Your task to perform on an android device: Go to Wikipedia Image 0: 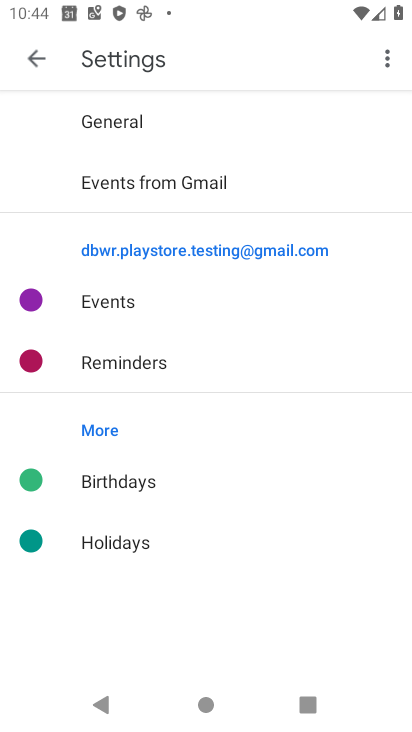
Step 0: press home button
Your task to perform on an android device: Go to Wikipedia Image 1: 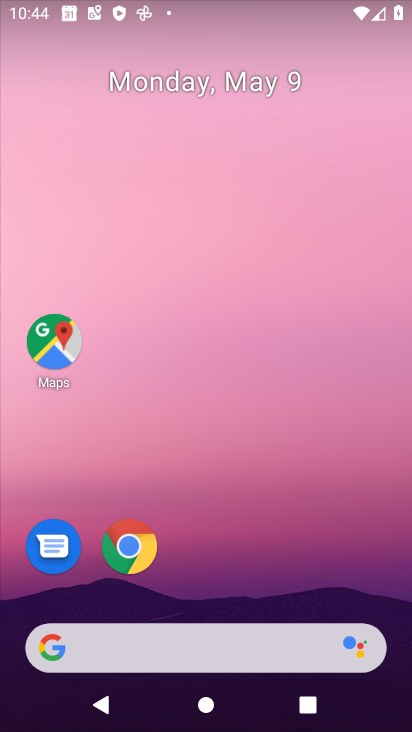
Step 1: click (165, 655)
Your task to perform on an android device: Go to Wikipedia Image 2: 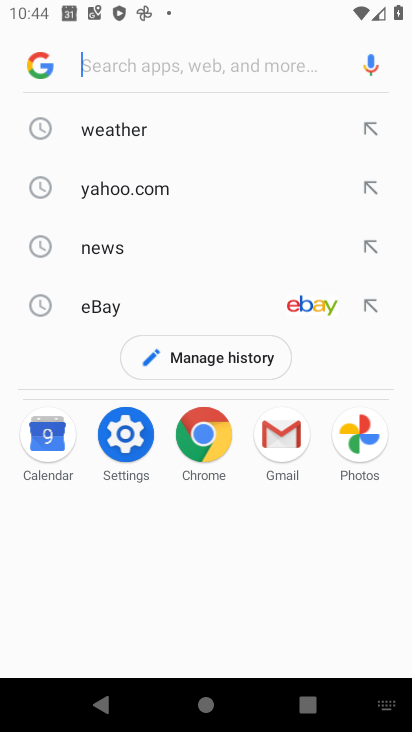
Step 2: type "wikipedia"
Your task to perform on an android device: Go to Wikipedia Image 3: 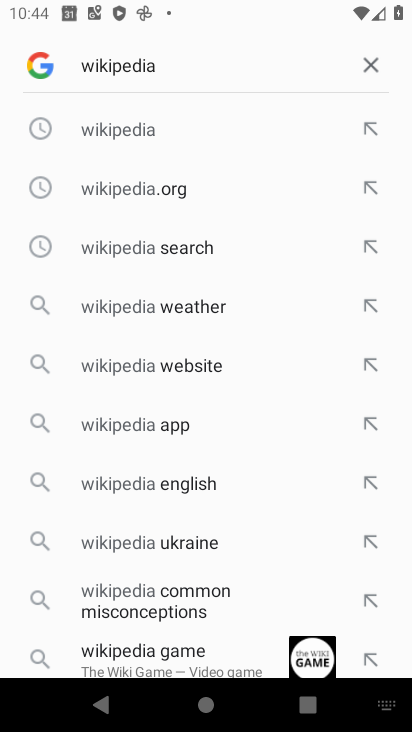
Step 3: click (150, 134)
Your task to perform on an android device: Go to Wikipedia Image 4: 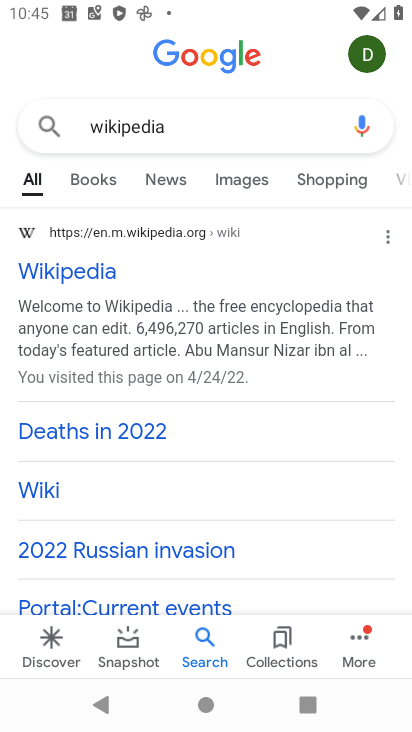
Step 4: click (137, 230)
Your task to perform on an android device: Go to Wikipedia Image 5: 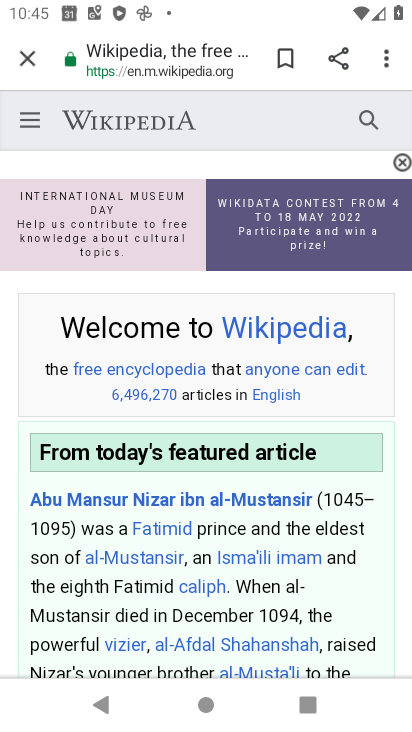
Step 5: task complete